Your task to perform on an android device: Search for the best coffee tables on Crate & Barrel Image 0: 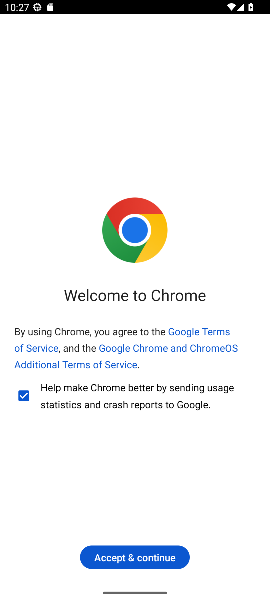
Step 0: press home button
Your task to perform on an android device: Search for the best coffee tables on Crate & Barrel Image 1: 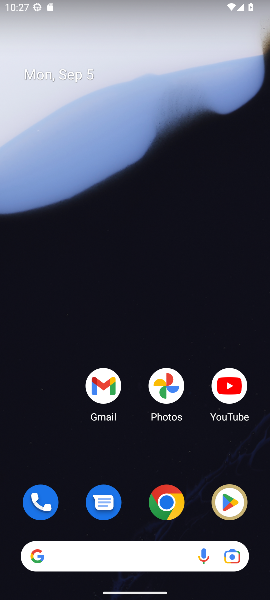
Step 1: drag from (247, 389) to (230, 81)
Your task to perform on an android device: Search for the best coffee tables on Crate & Barrel Image 2: 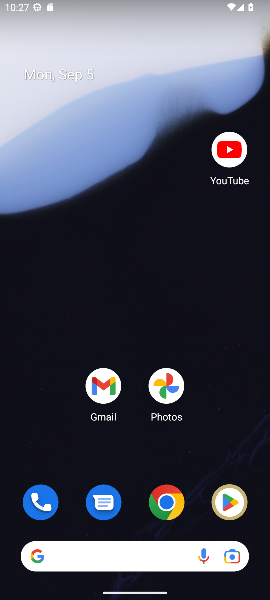
Step 2: drag from (159, 108) to (124, 37)
Your task to perform on an android device: Search for the best coffee tables on Crate & Barrel Image 3: 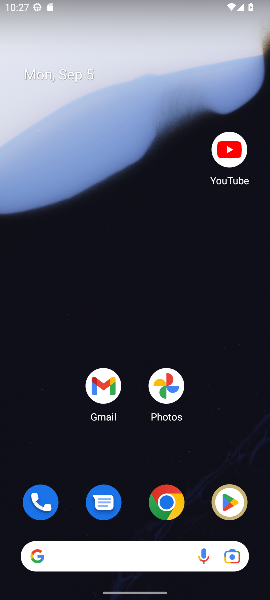
Step 3: drag from (257, 524) to (153, 28)
Your task to perform on an android device: Search for the best coffee tables on Crate & Barrel Image 4: 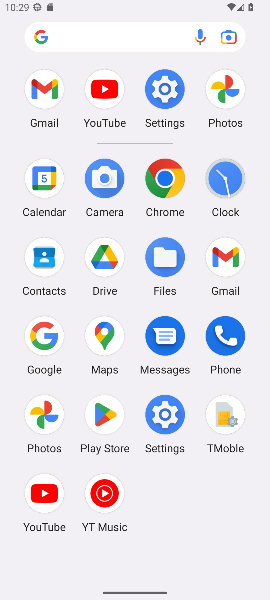
Step 4: click (42, 341)
Your task to perform on an android device: Search for the best coffee tables on Crate & Barrel Image 5: 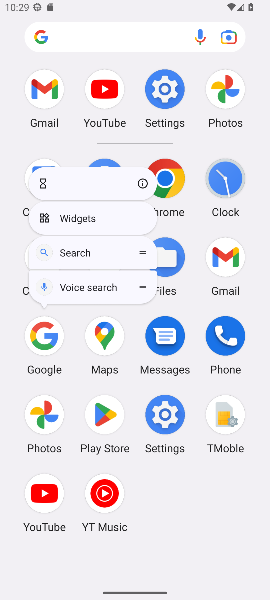
Step 5: click (42, 341)
Your task to perform on an android device: Search for the best coffee tables on Crate & Barrel Image 6: 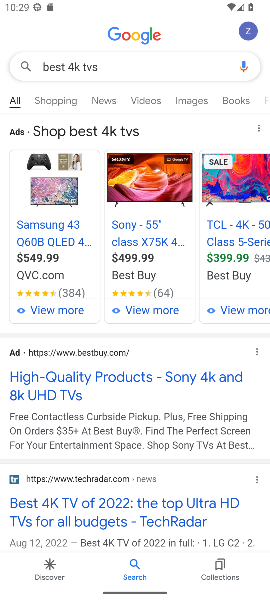
Step 6: press back button
Your task to perform on an android device: Search for the best coffee tables on Crate & Barrel Image 7: 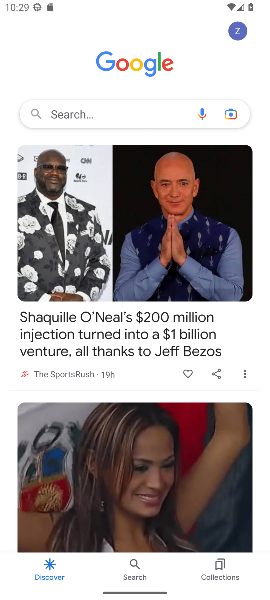
Step 7: click (65, 104)
Your task to perform on an android device: Search for the best coffee tables on Crate & Barrel Image 8: 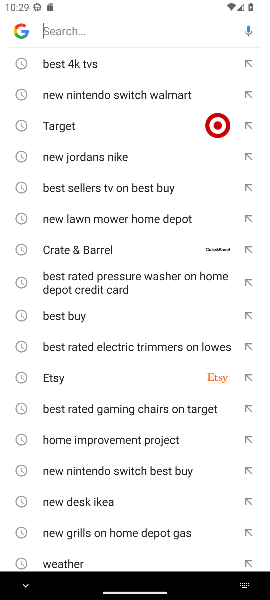
Step 8: type "best coffee tables on Crate & Barrel"
Your task to perform on an android device: Search for the best coffee tables on Crate & Barrel Image 9: 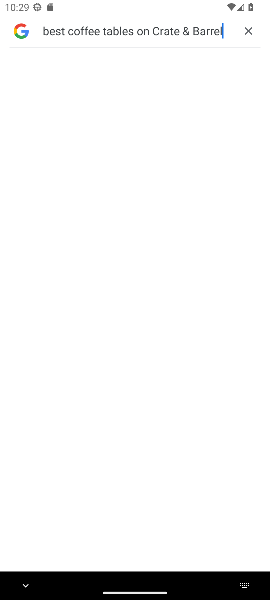
Step 9: task complete